Your task to perform on an android device: Go to Amazon Image 0: 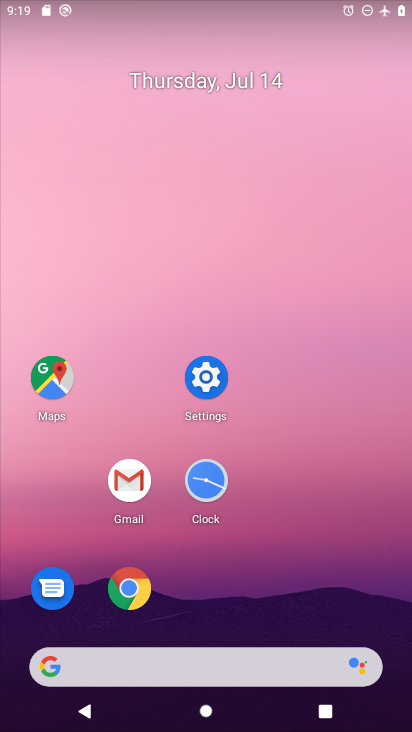
Step 0: click (138, 590)
Your task to perform on an android device: Go to Amazon Image 1: 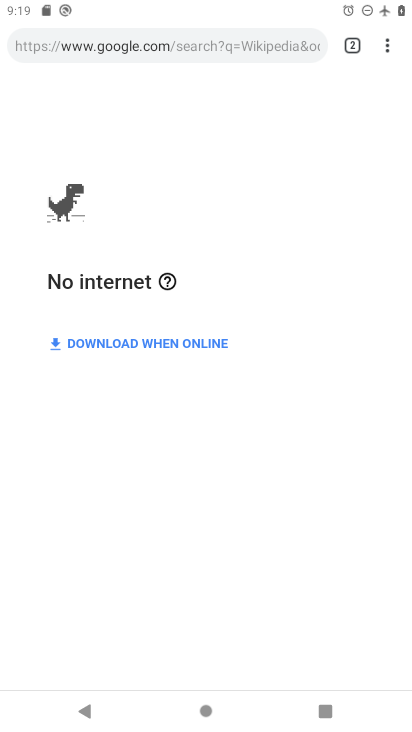
Step 1: task complete